Your task to perform on an android device: When is my next appointment? Image 0: 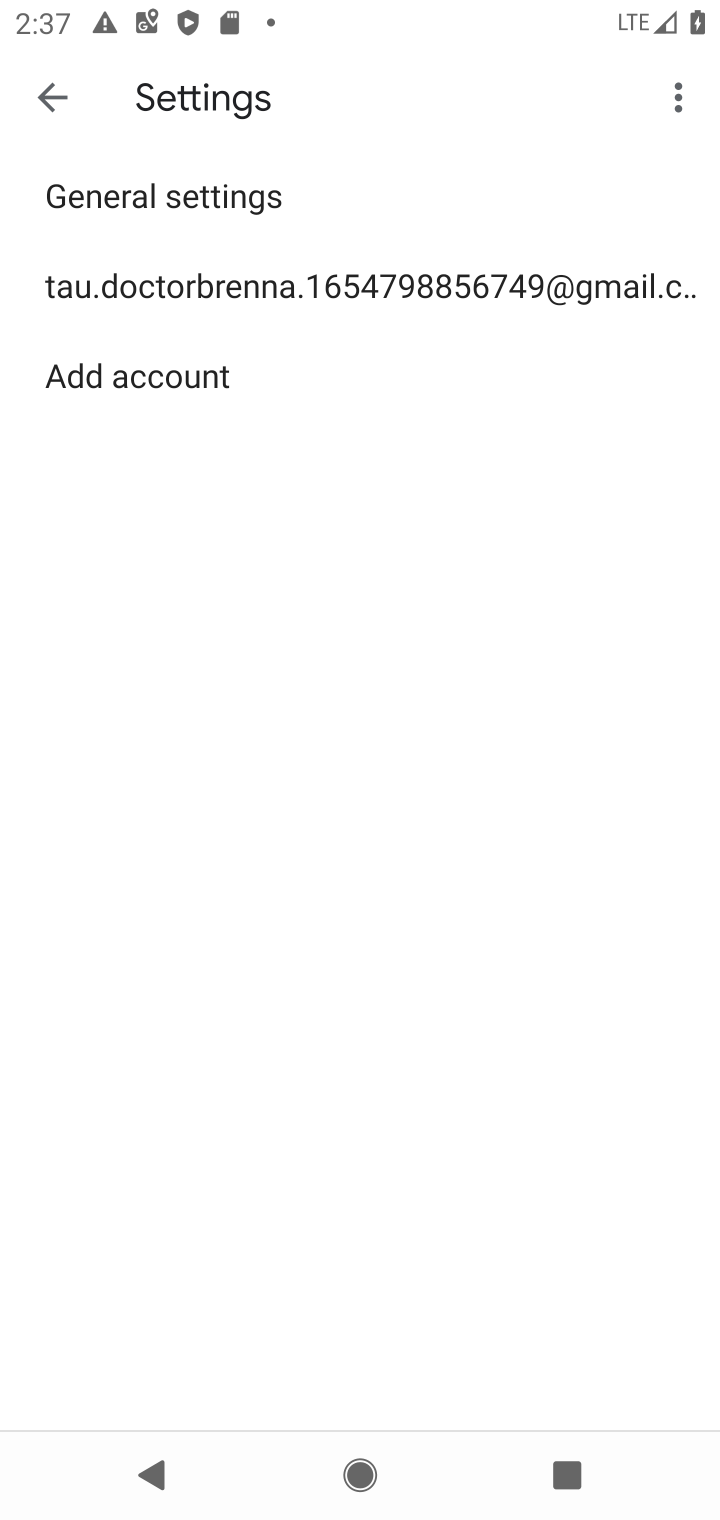
Step 0: press back button
Your task to perform on an android device: When is my next appointment? Image 1: 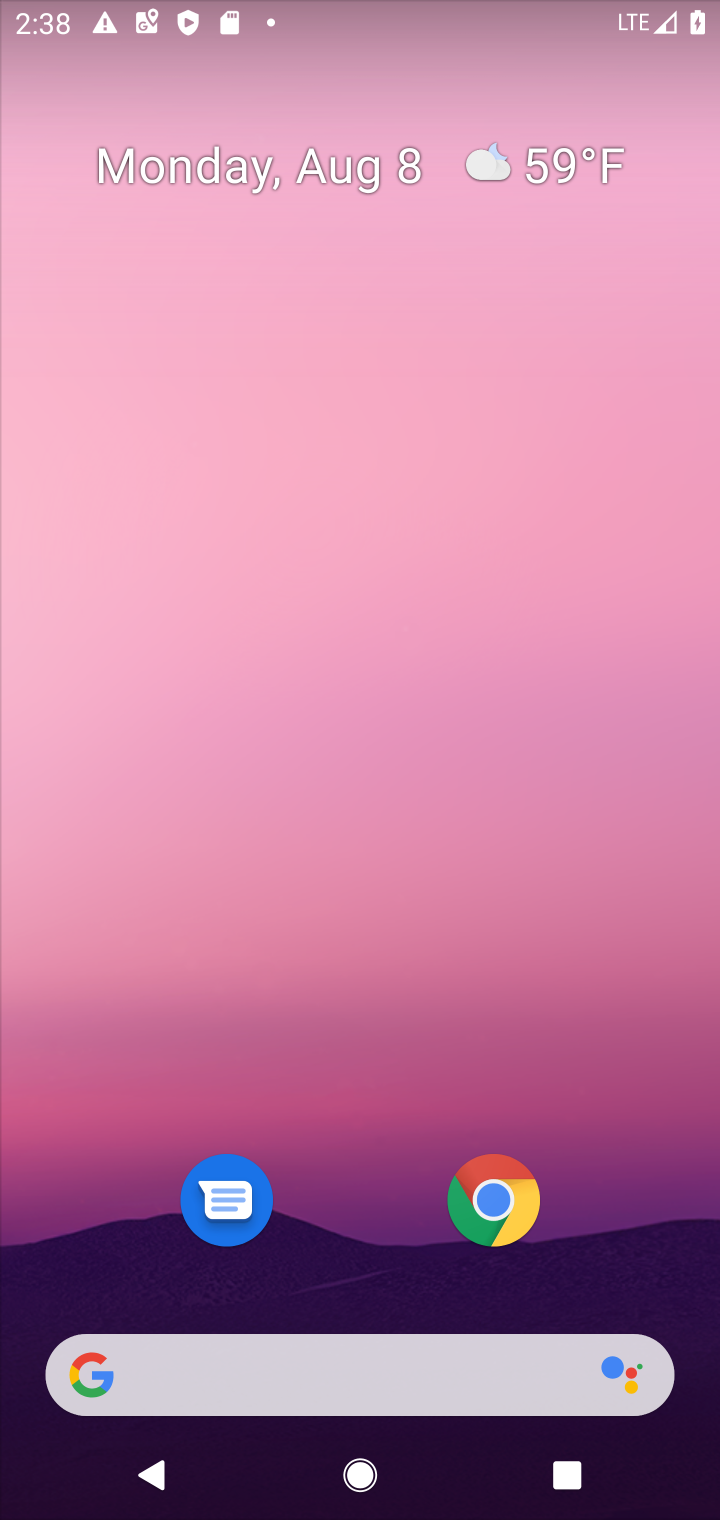
Step 1: drag from (382, 1170) to (507, 42)
Your task to perform on an android device: When is my next appointment? Image 2: 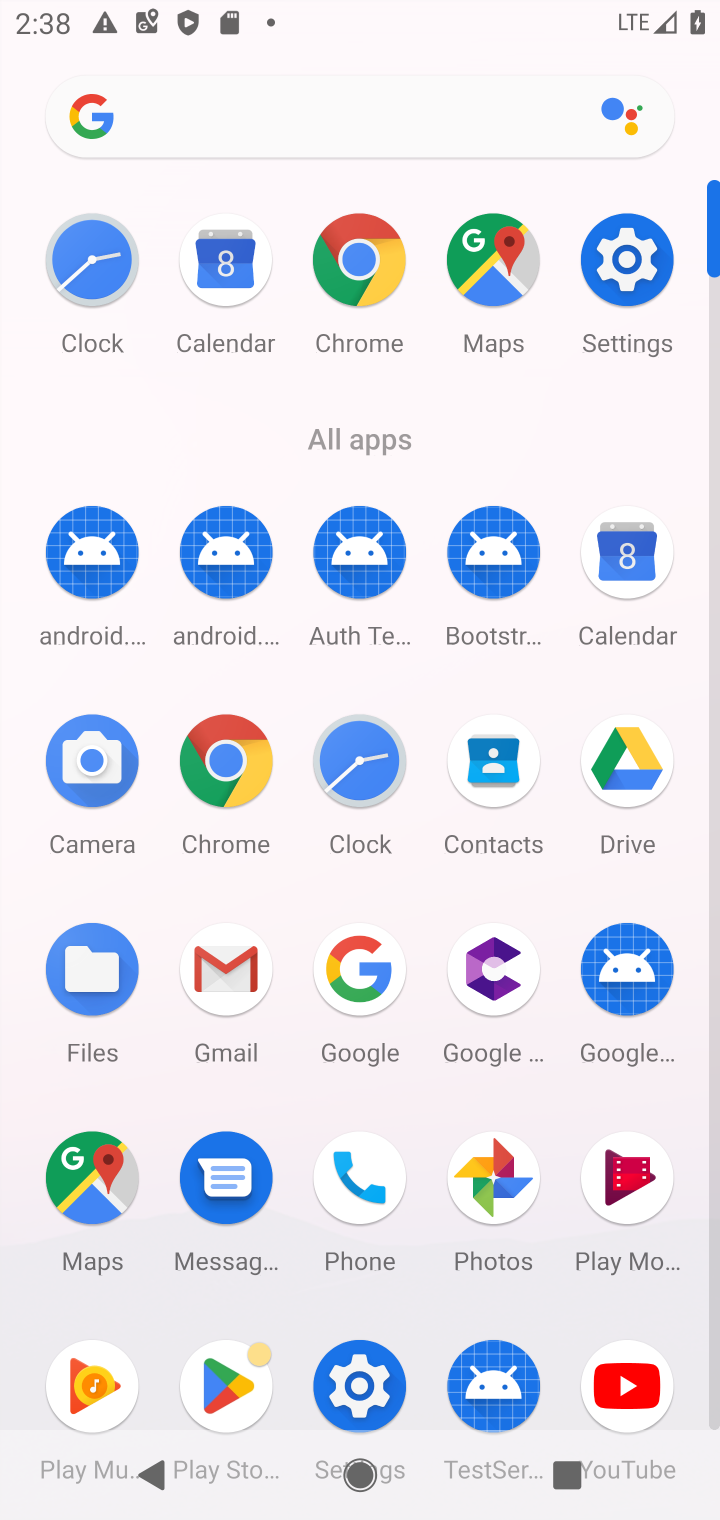
Step 2: click (635, 550)
Your task to perform on an android device: When is my next appointment? Image 3: 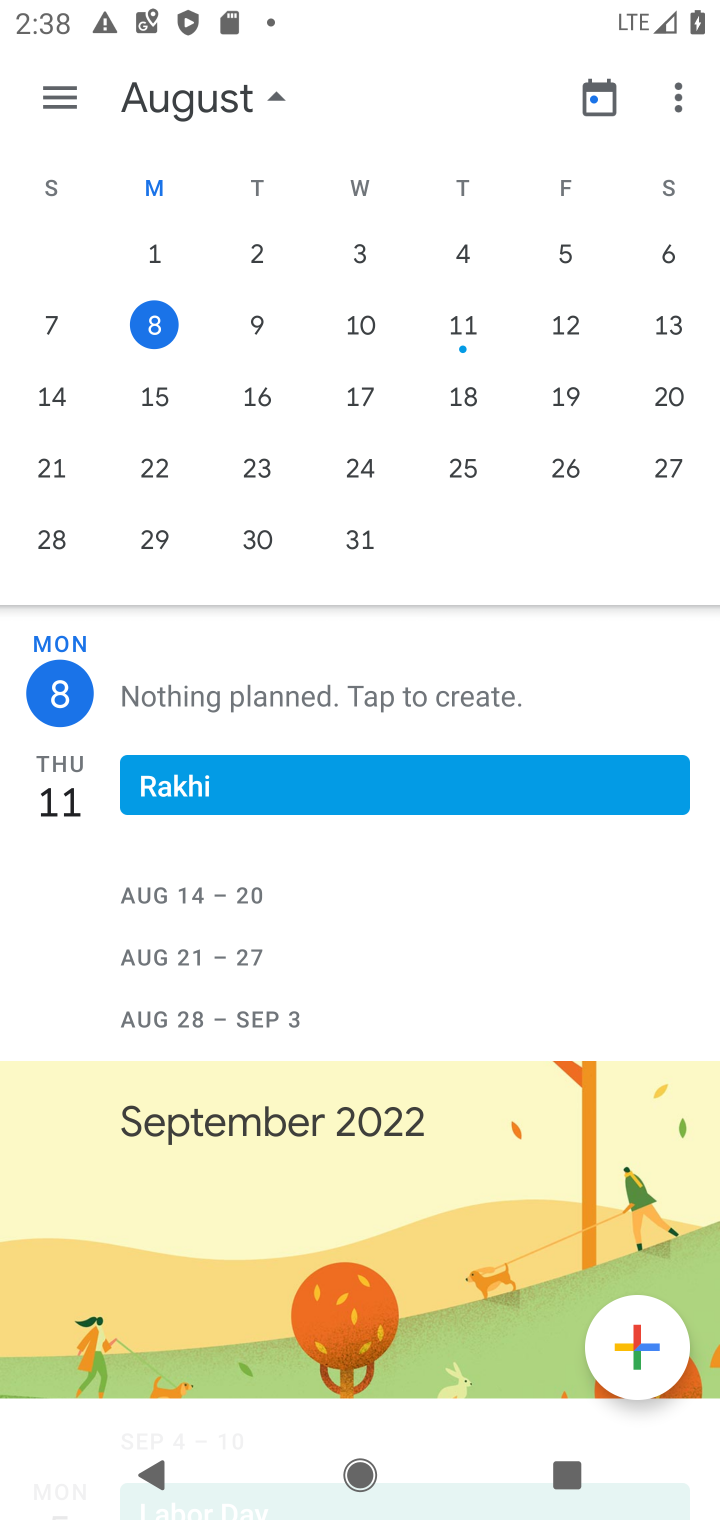
Step 3: task complete